Your task to perform on an android device: Show me recent news Image 0: 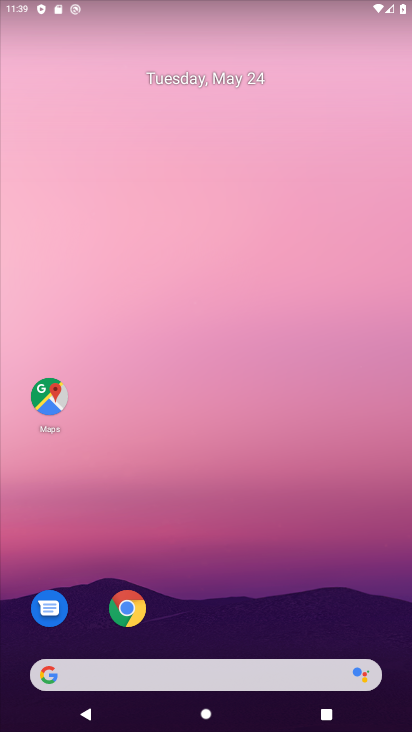
Step 0: drag from (47, 496) to (398, 401)
Your task to perform on an android device: Show me recent news Image 1: 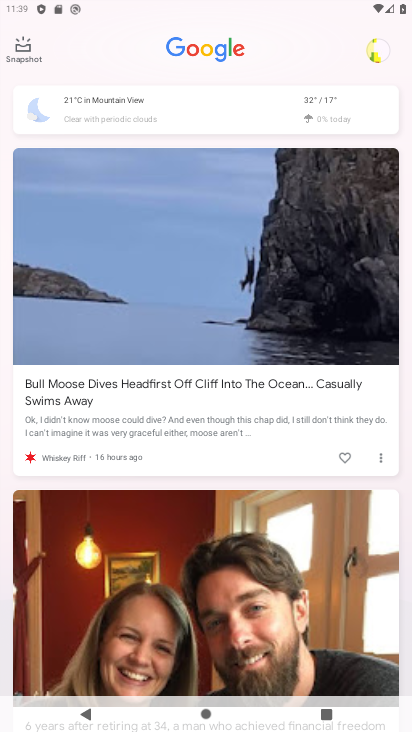
Step 1: task complete